Your task to perform on an android device: change the clock style Image 0: 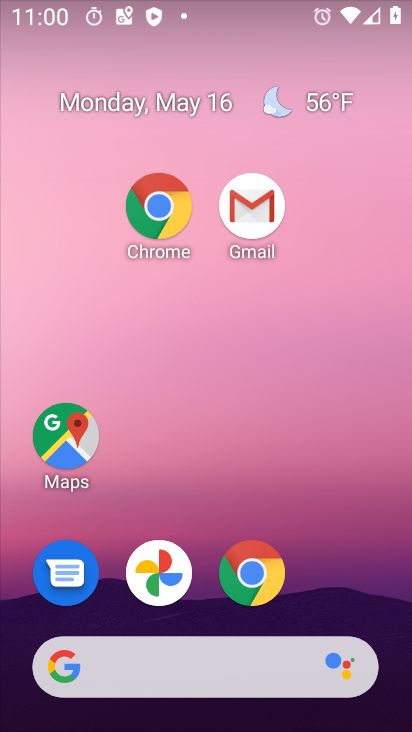
Step 0: click (164, 5)
Your task to perform on an android device: change the clock style Image 1: 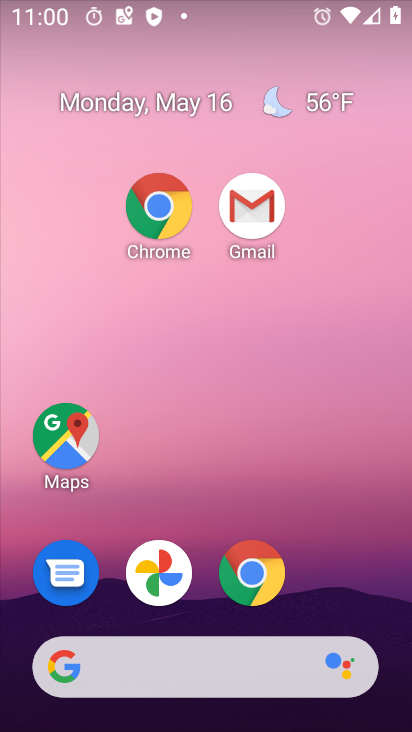
Step 1: drag from (334, 470) to (207, 94)
Your task to perform on an android device: change the clock style Image 2: 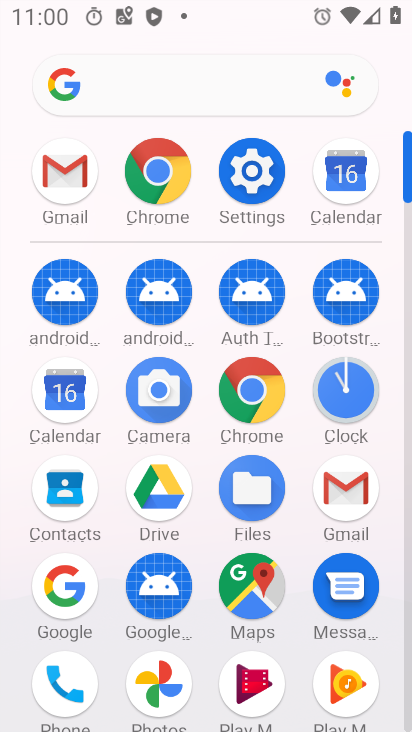
Step 2: drag from (251, 512) to (158, 22)
Your task to perform on an android device: change the clock style Image 3: 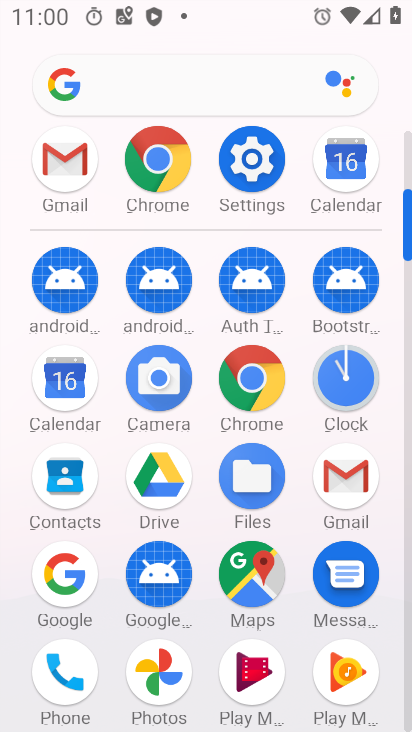
Step 3: click (343, 375)
Your task to perform on an android device: change the clock style Image 4: 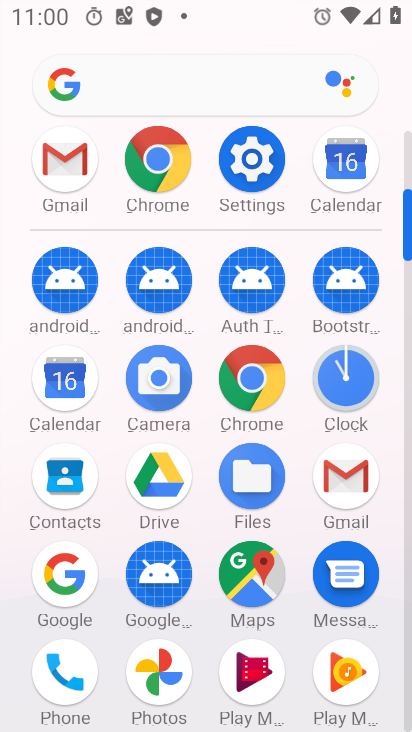
Step 4: click (343, 375)
Your task to perform on an android device: change the clock style Image 5: 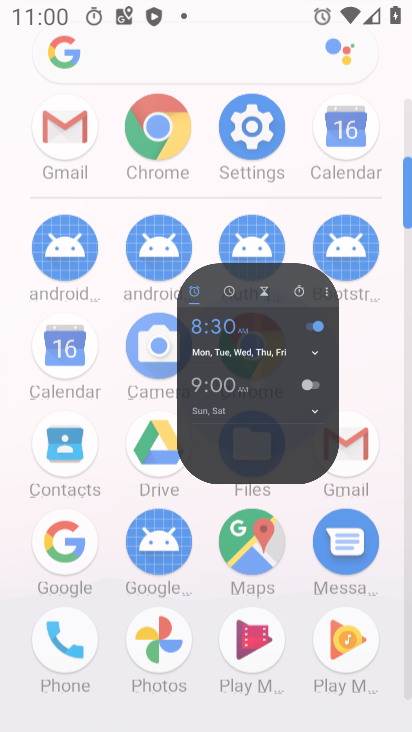
Step 5: click (343, 375)
Your task to perform on an android device: change the clock style Image 6: 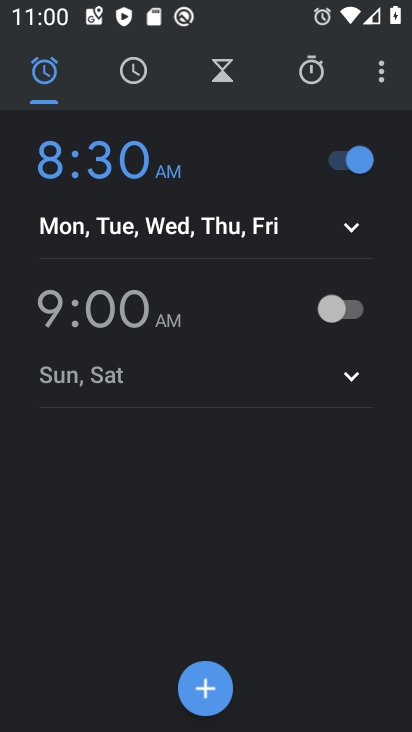
Step 6: click (377, 67)
Your task to perform on an android device: change the clock style Image 7: 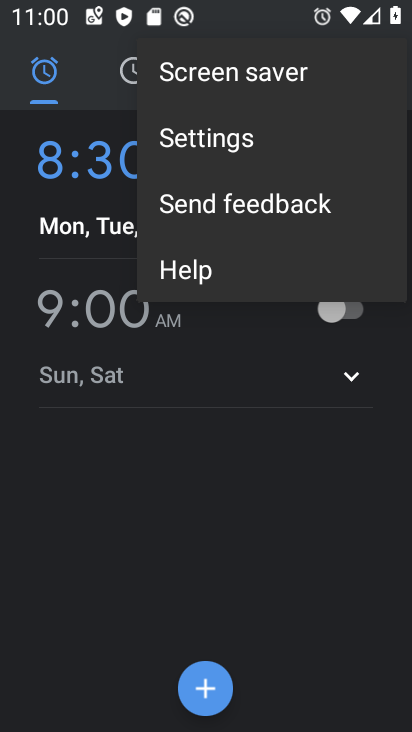
Step 7: click (230, 135)
Your task to perform on an android device: change the clock style Image 8: 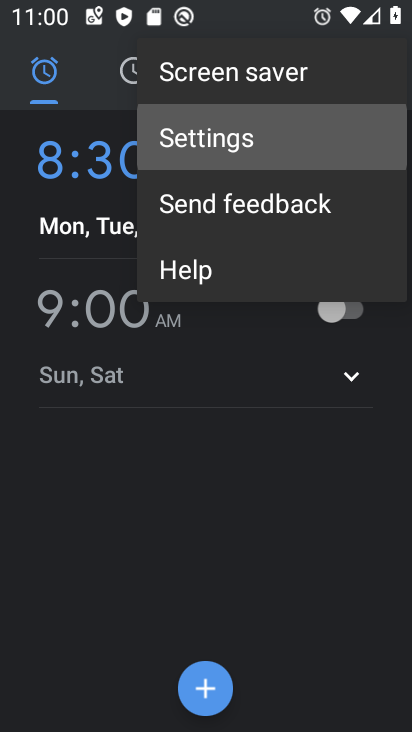
Step 8: click (229, 136)
Your task to perform on an android device: change the clock style Image 9: 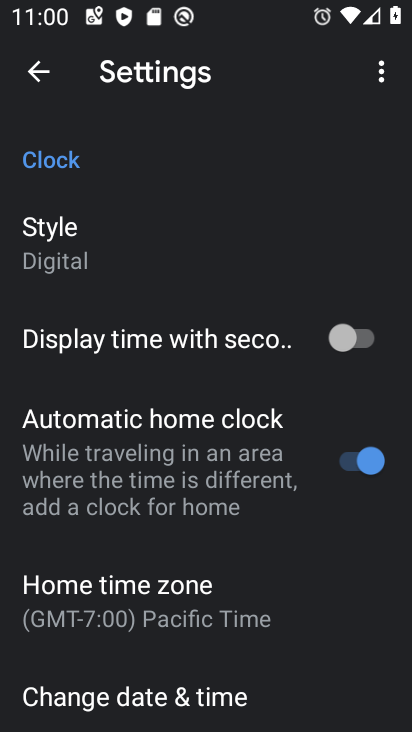
Step 9: click (113, 236)
Your task to perform on an android device: change the clock style Image 10: 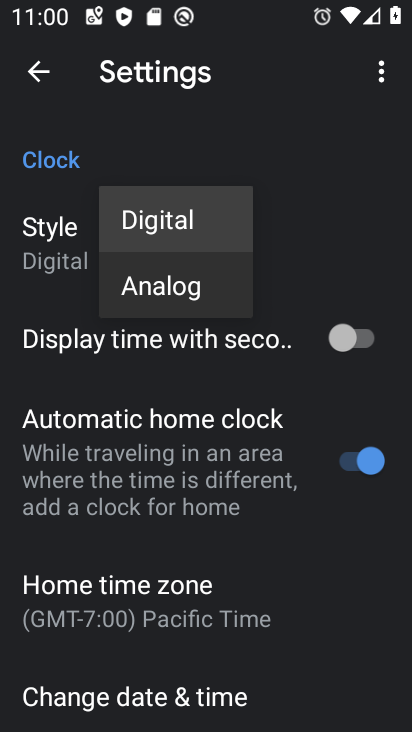
Step 10: click (157, 281)
Your task to perform on an android device: change the clock style Image 11: 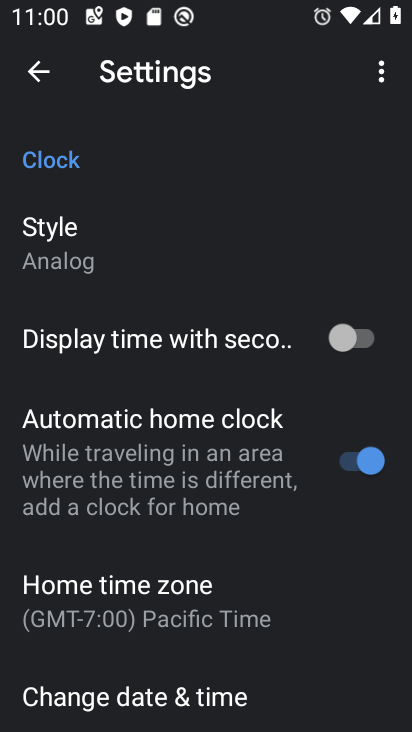
Step 11: task complete